Your task to perform on an android device: Open Chrome and go to the settings page Image 0: 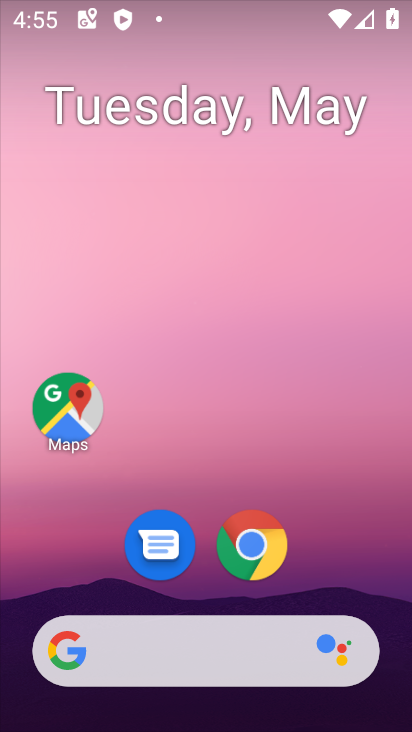
Step 0: drag from (337, 587) to (283, 86)
Your task to perform on an android device: Open Chrome and go to the settings page Image 1: 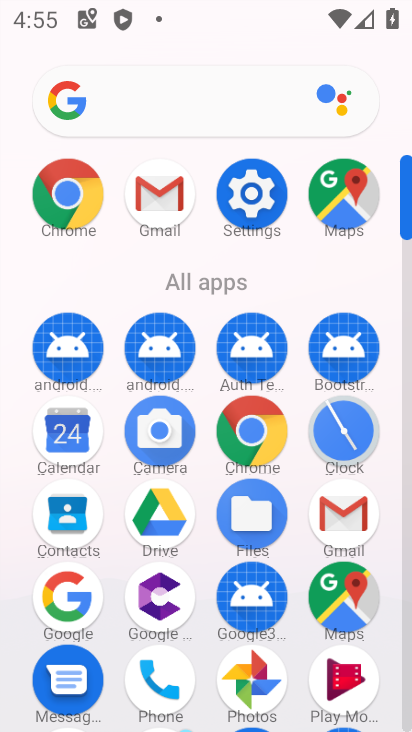
Step 1: drag from (11, 524) to (11, 190)
Your task to perform on an android device: Open Chrome and go to the settings page Image 2: 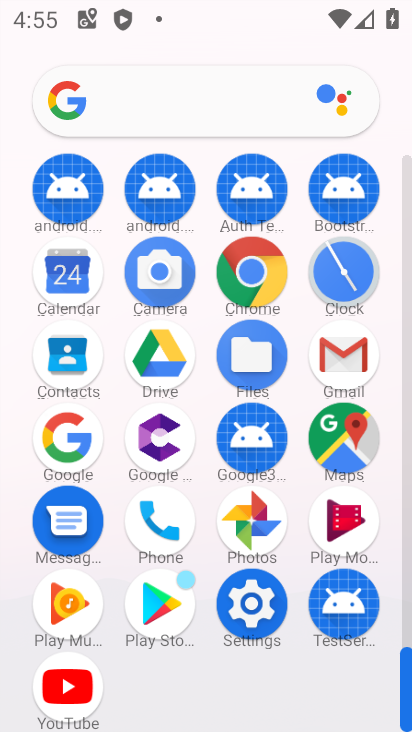
Step 2: click (250, 263)
Your task to perform on an android device: Open Chrome and go to the settings page Image 3: 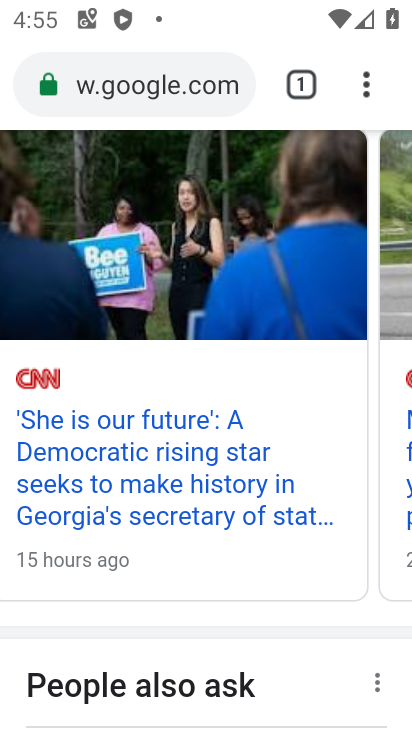
Step 3: task complete